Your task to perform on an android device: Open the web browser Image 0: 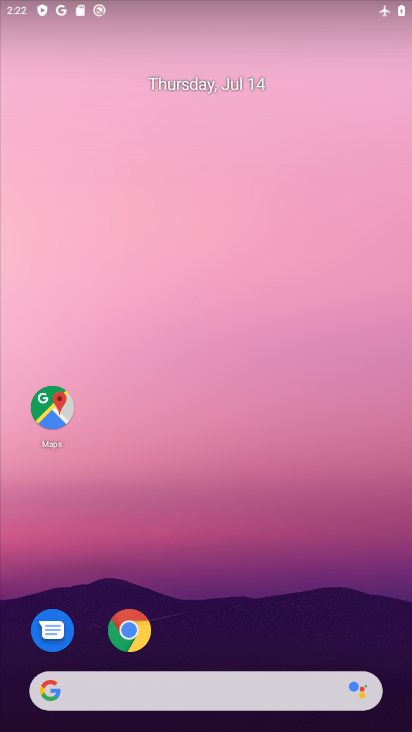
Step 0: drag from (226, 678) to (327, 148)
Your task to perform on an android device: Open the web browser Image 1: 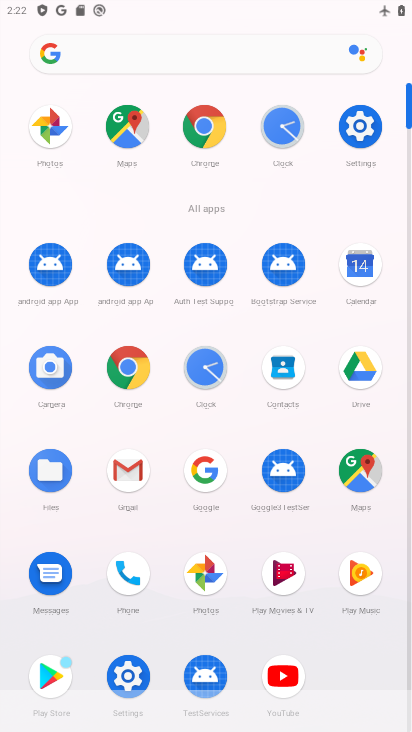
Step 1: click (201, 474)
Your task to perform on an android device: Open the web browser Image 2: 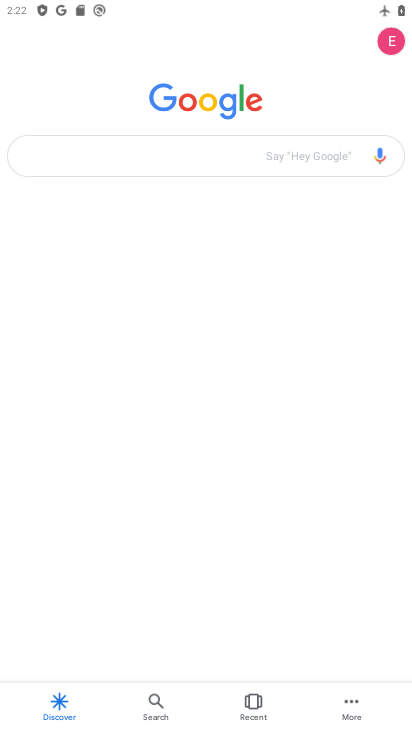
Step 2: task complete